Your task to perform on an android device: find snoozed emails in the gmail app Image 0: 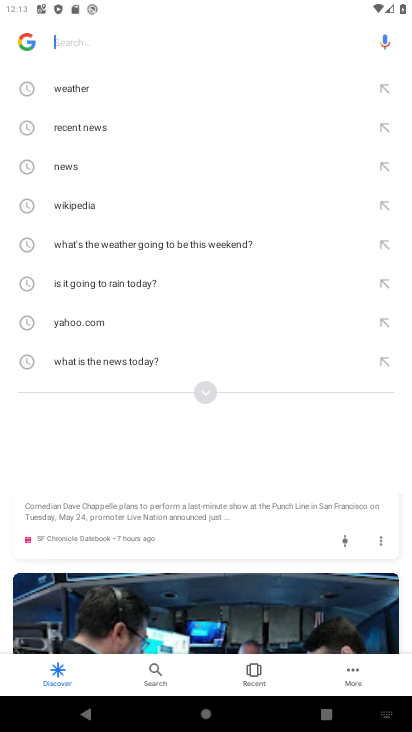
Step 0: press back button
Your task to perform on an android device: find snoozed emails in the gmail app Image 1: 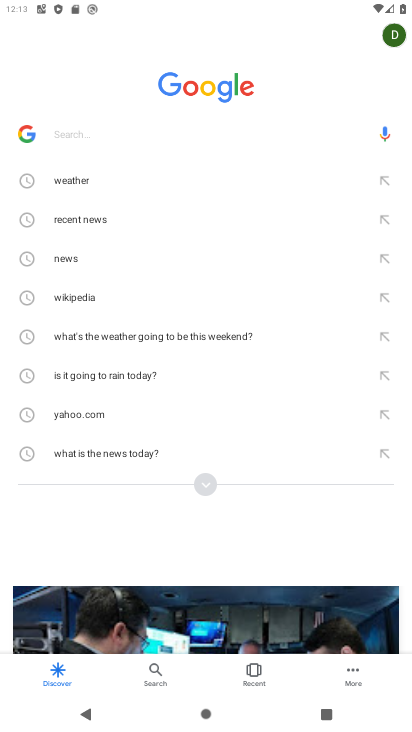
Step 1: press back button
Your task to perform on an android device: find snoozed emails in the gmail app Image 2: 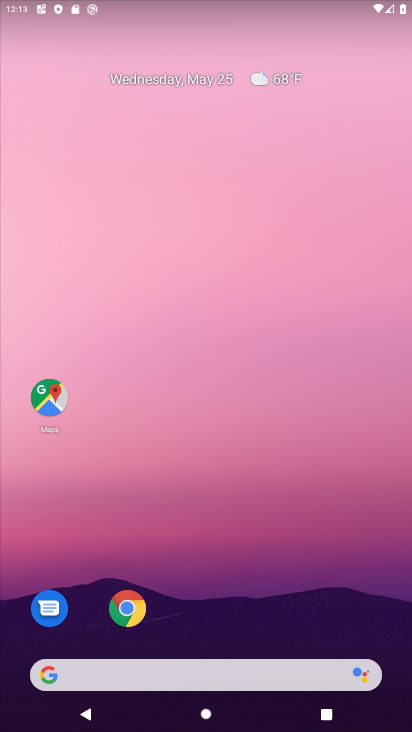
Step 2: drag from (350, 576) to (361, 107)
Your task to perform on an android device: find snoozed emails in the gmail app Image 3: 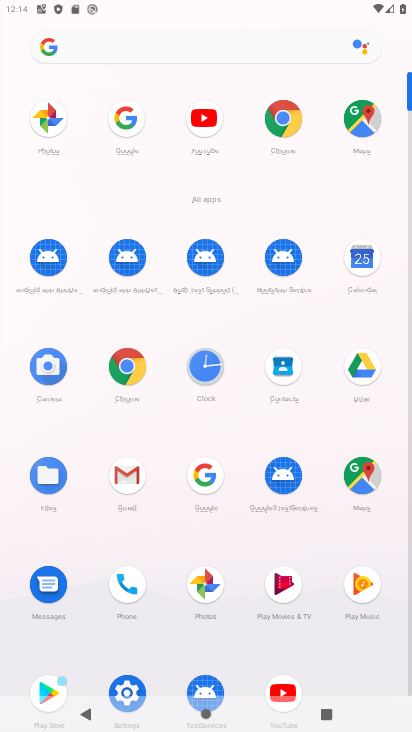
Step 3: click (126, 475)
Your task to perform on an android device: find snoozed emails in the gmail app Image 4: 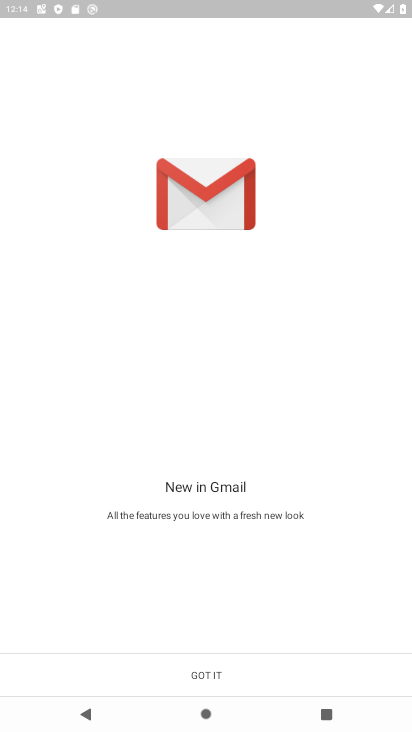
Step 4: click (194, 659)
Your task to perform on an android device: find snoozed emails in the gmail app Image 5: 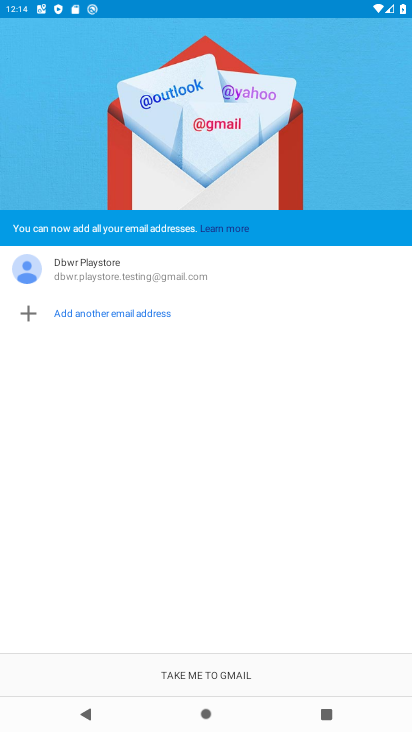
Step 5: click (182, 676)
Your task to perform on an android device: find snoozed emails in the gmail app Image 6: 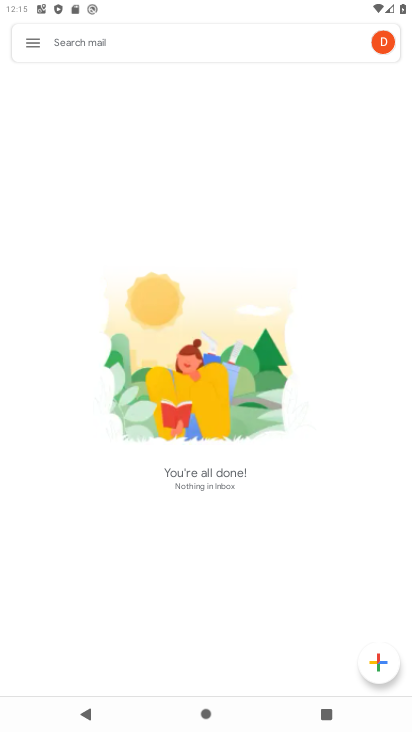
Step 6: click (26, 42)
Your task to perform on an android device: find snoozed emails in the gmail app Image 7: 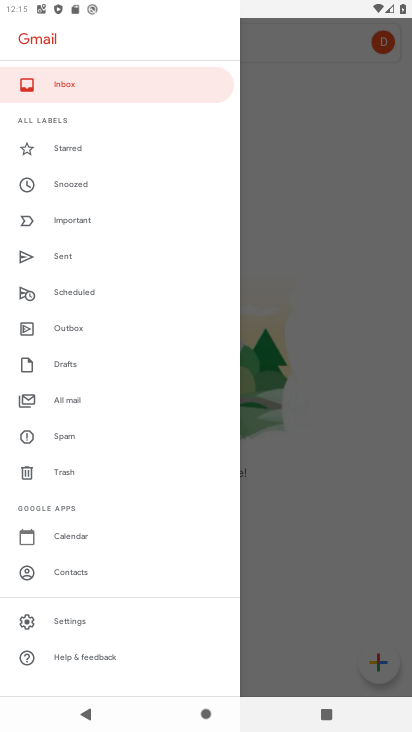
Step 7: click (83, 181)
Your task to perform on an android device: find snoozed emails in the gmail app Image 8: 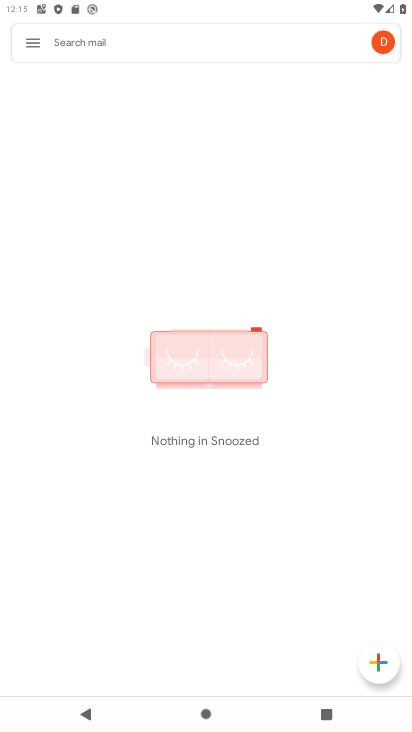
Step 8: task complete